Your task to perform on an android device: turn off smart reply in the gmail app Image 0: 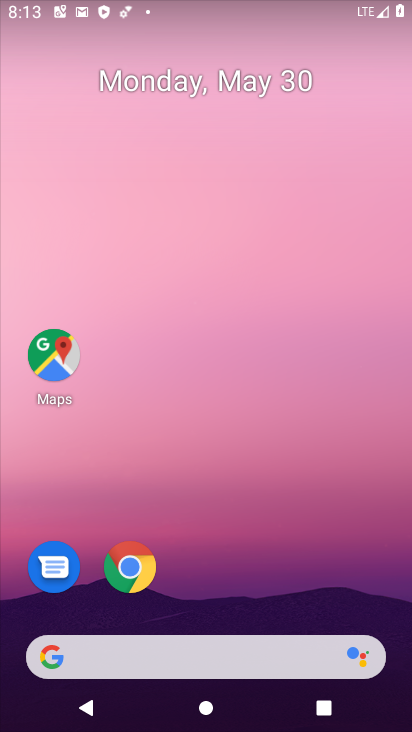
Step 0: drag from (285, 595) to (238, 36)
Your task to perform on an android device: turn off smart reply in the gmail app Image 1: 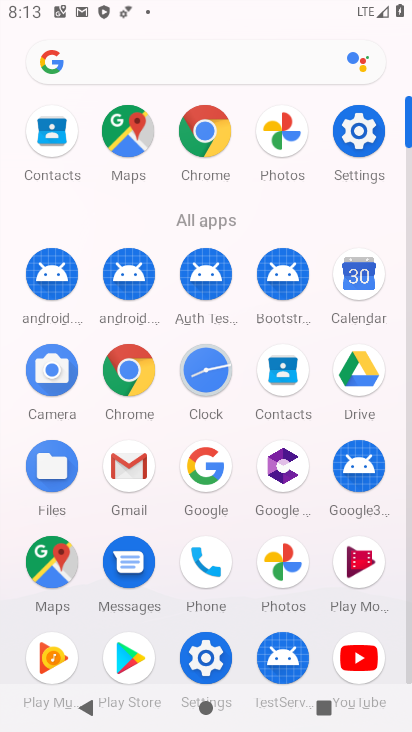
Step 1: click (131, 469)
Your task to perform on an android device: turn off smart reply in the gmail app Image 2: 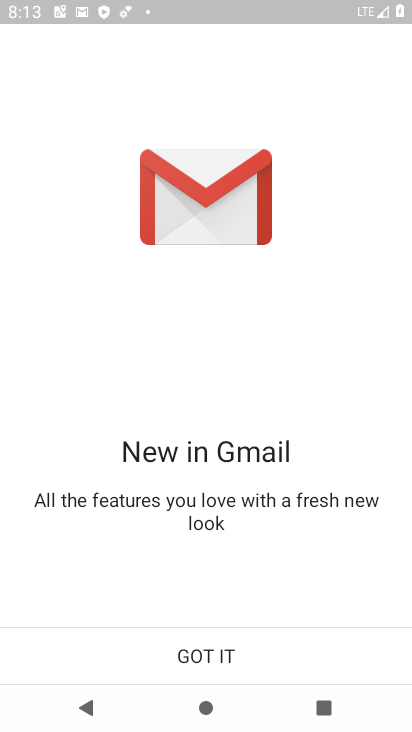
Step 2: click (212, 669)
Your task to perform on an android device: turn off smart reply in the gmail app Image 3: 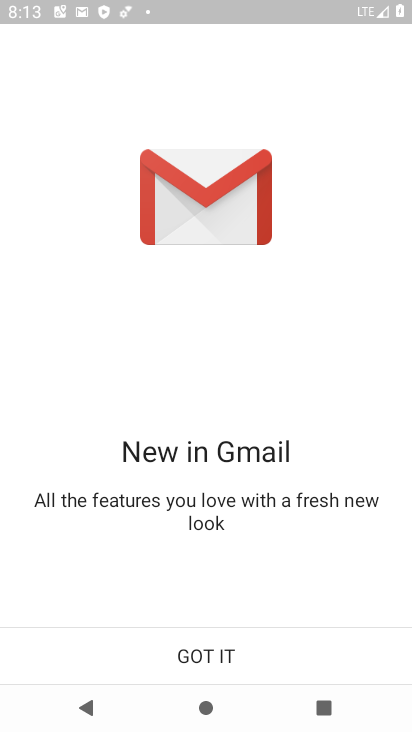
Step 3: click (212, 669)
Your task to perform on an android device: turn off smart reply in the gmail app Image 4: 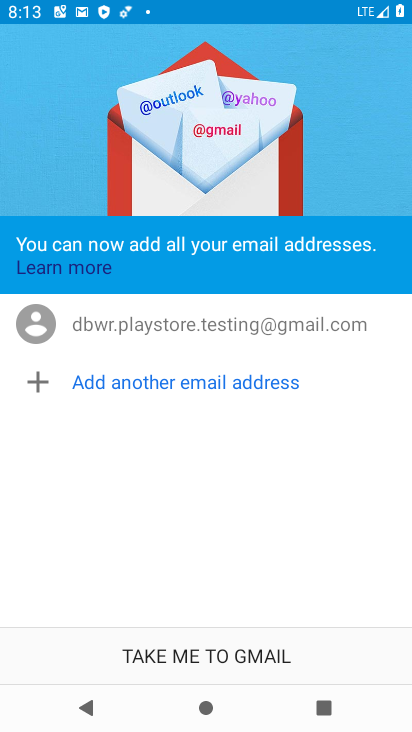
Step 4: click (212, 669)
Your task to perform on an android device: turn off smart reply in the gmail app Image 5: 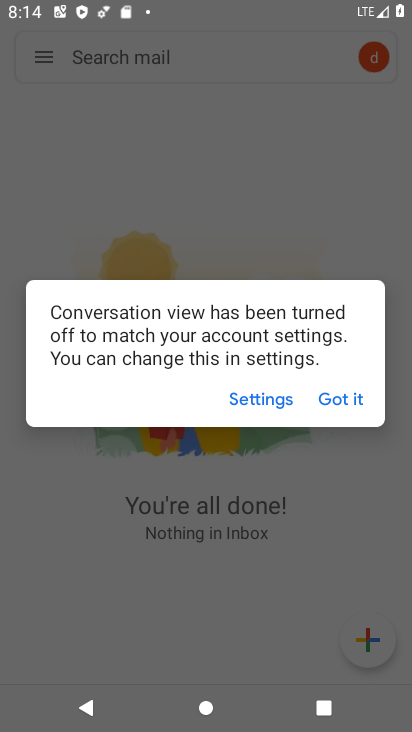
Step 5: task complete